Your task to perform on an android device: turn on sleep mode Image 0: 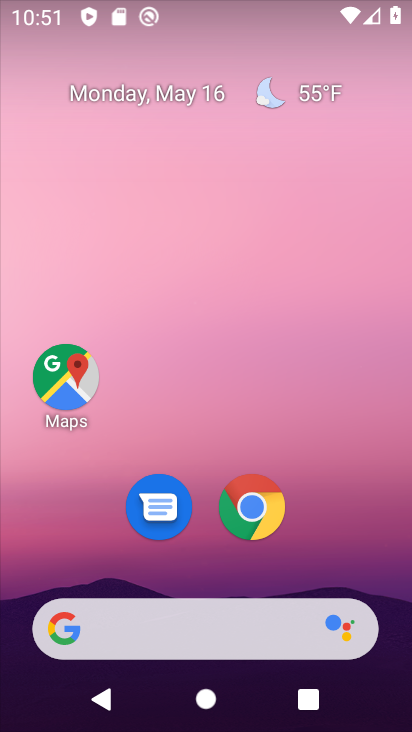
Step 0: drag from (349, 505) to (337, 110)
Your task to perform on an android device: turn on sleep mode Image 1: 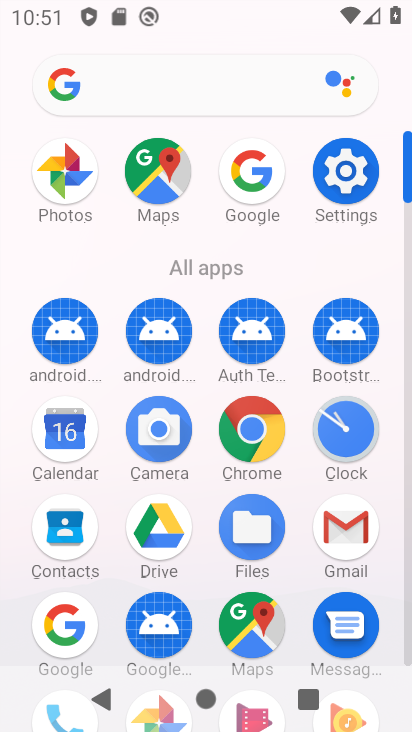
Step 1: click (331, 189)
Your task to perform on an android device: turn on sleep mode Image 2: 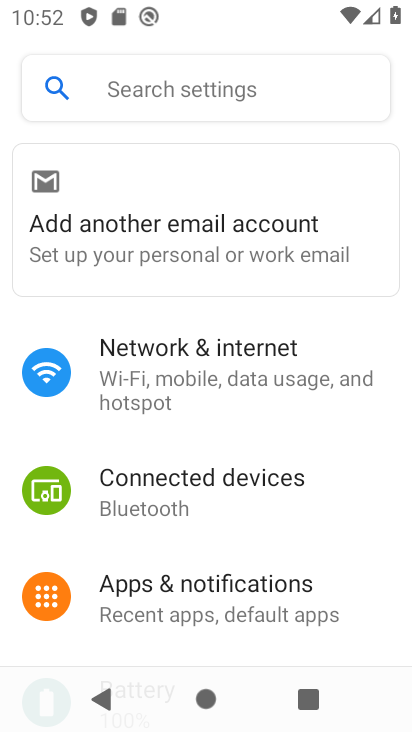
Step 2: drag from (272, 591) to (279, 248)
Your task to perform on an android device: turn on sleep mode Image 3: 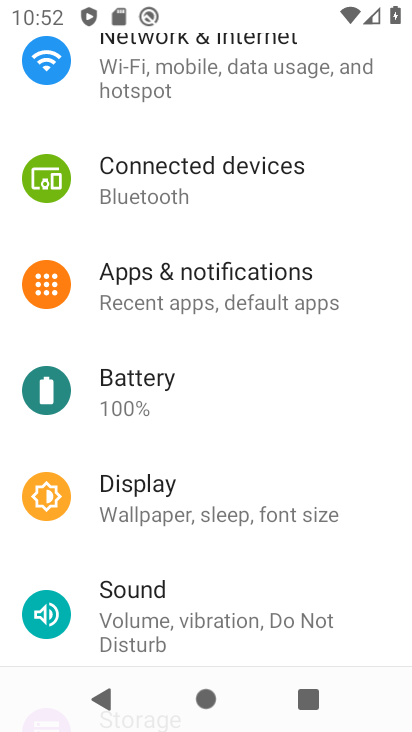
Step 3: click (196, 506)
Your task to perform on an android device: turn on sleep mode Image 4: 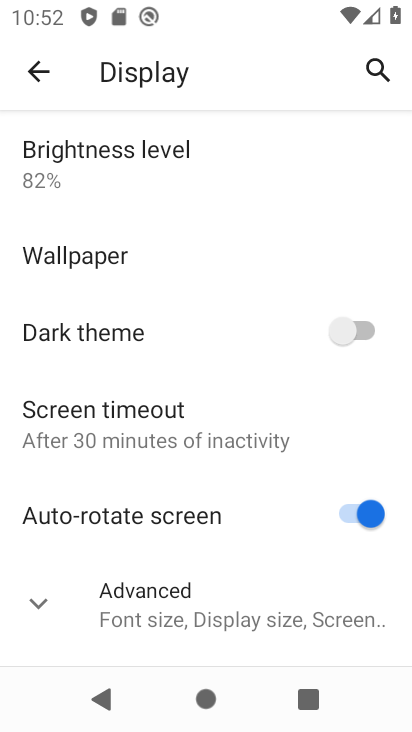
Step 4: click (45, 603)
Your task to perform on an android device: turn on sleep mode Image 5: 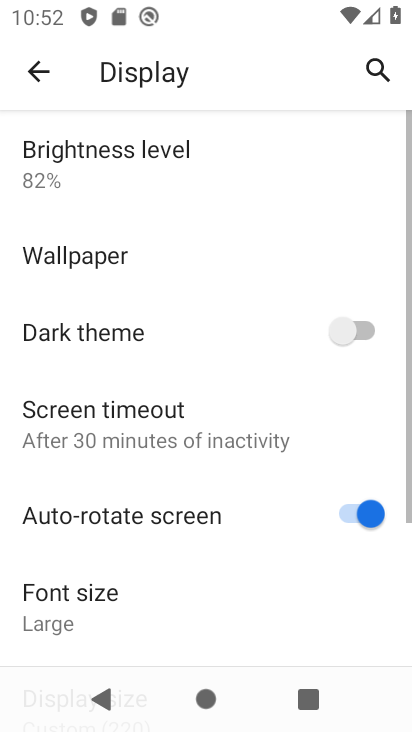
Step 5: task complete